Your task to perform on an android device: Go to privacy settings Image 0: 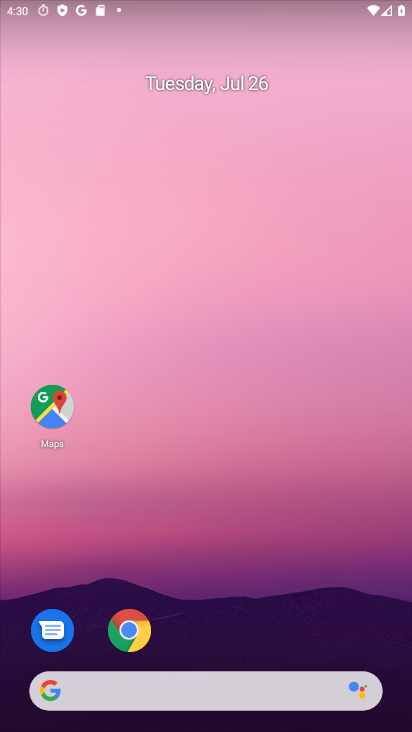
Step 0: drag from (304, 517) to (257, 18)
Your task to perform on an android device: Go to privacy settings Image 1: 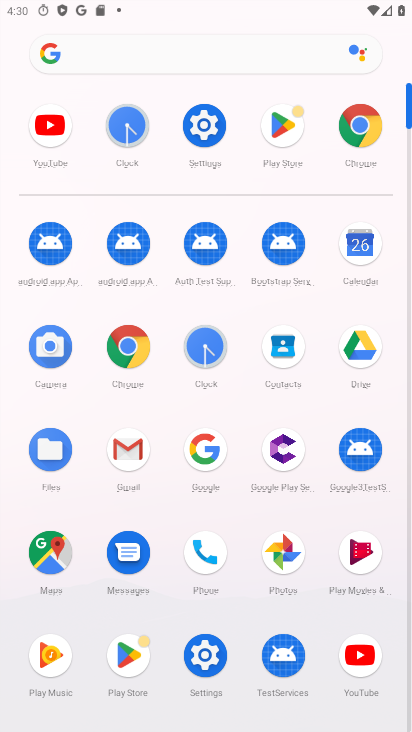
Step 1: click (214, 119)
Your task to perform on an android device: Go to privacy settings Image 2: 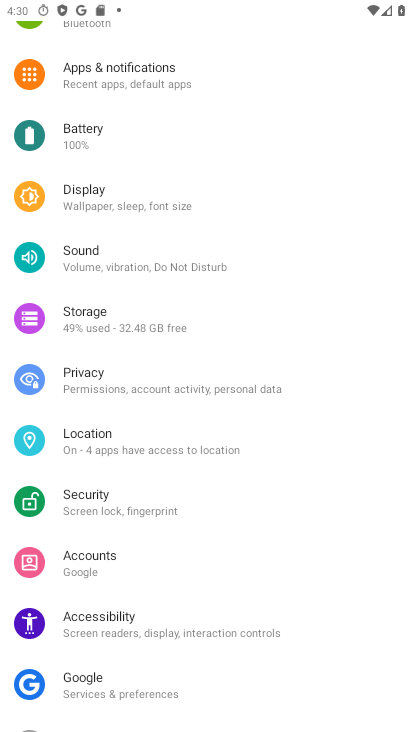
Step 2: click (127, 393)
Your task to perform on an android device: Go to privacy settings Image 3: 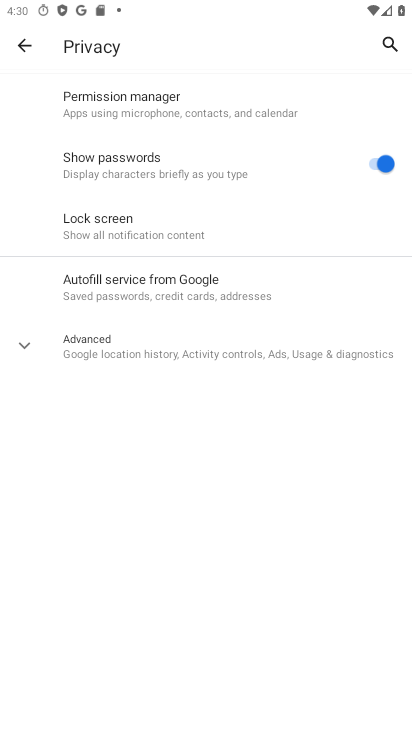
Step 3: task complete